Your task to perform on an android device: find photos in the google photos app Image 0: 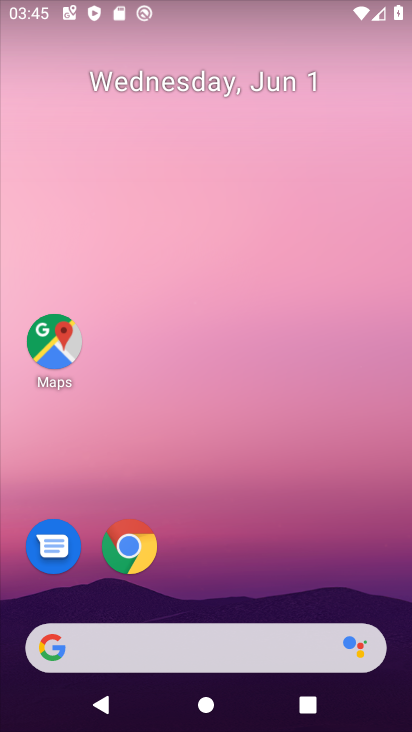
Step 0: drag from (237, 567) to (178, 116)
Your task to perform on an android device: find photos in the google photos app Image 1: 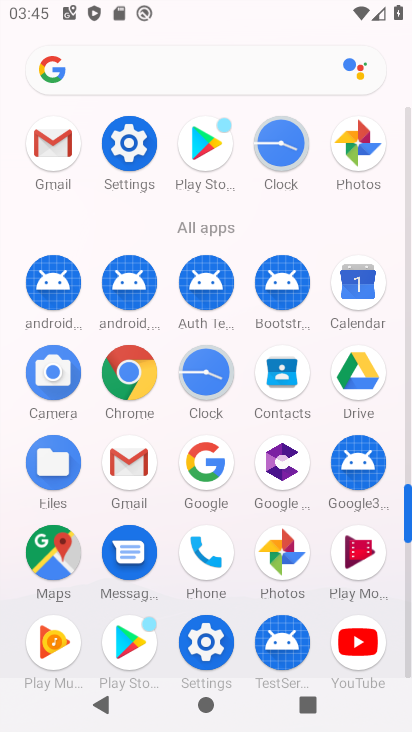
Step 1: click (362, 158)
Your task to perform on an android device: find photos in the google photos app Image 2: 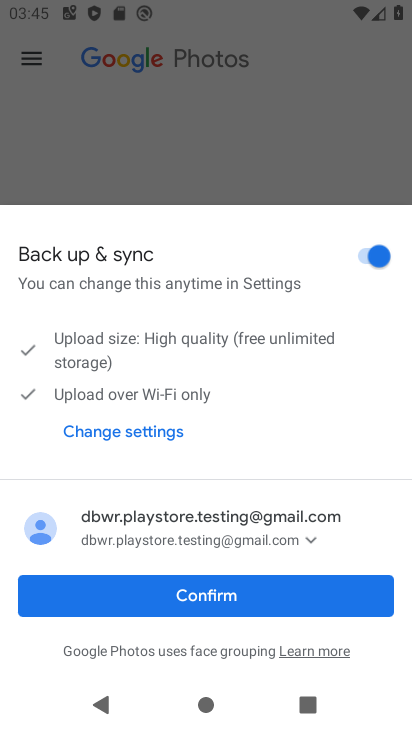
Step 2: click (278, 585)
Your task to perform on an android device: find photos in the google photos app Image 3: 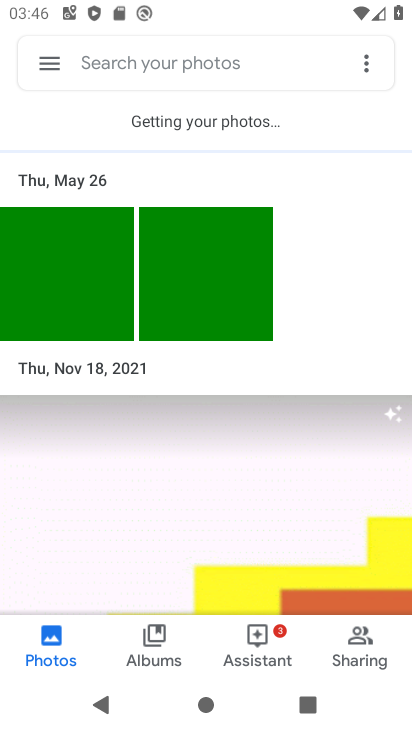
Step 3: task complete